Your task to perform on an android device: Toggle the flashlight Image 0: 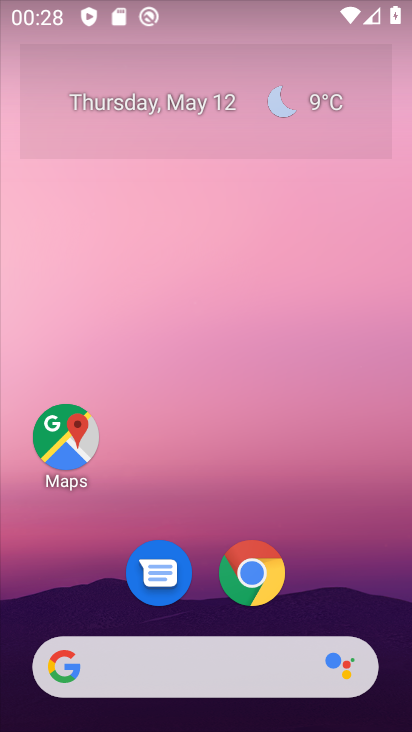
Step 0: drag from (224, 559) to (256, 6)
Your task to perform on an android device: Toggle the flashlight Image 1: 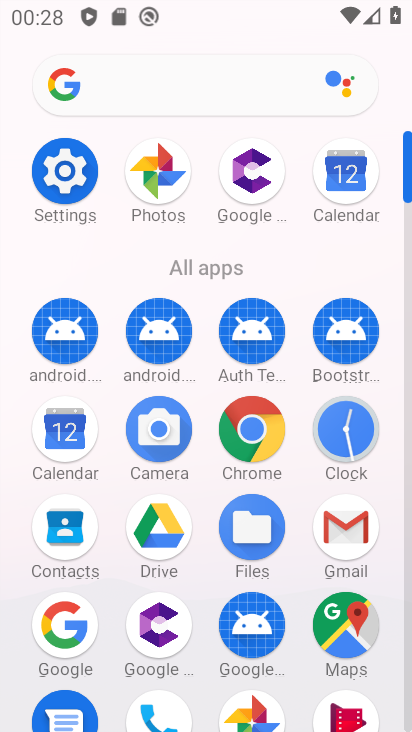
Step 1: click (70, 178)
Your task to perform on an android device: Toggle the flashlight Image 2: 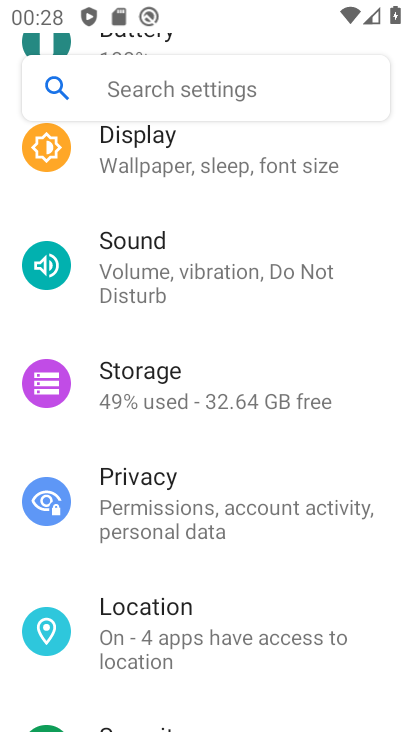
Step 2: click (217, 100)
Your task to perform on an android device: Toggle the flashlight Image 3: 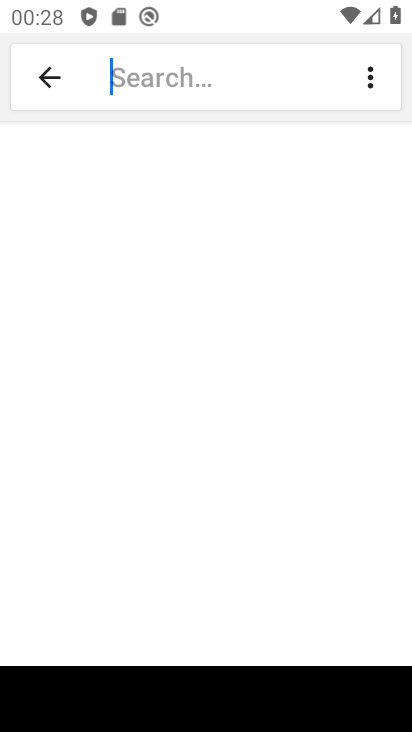
Step 3: type "flashlight"
Your task to perform on an android device: Toggle the flashlight Image 4: 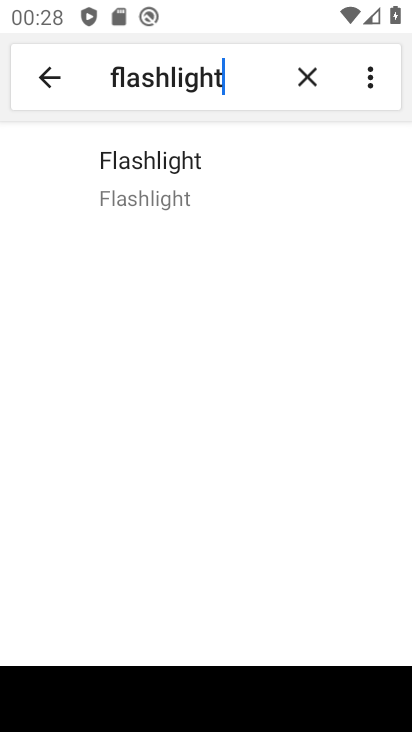
Step 4: click (233, 207)
Your task to perform on an android device: Toggle the flashlight Image 5: 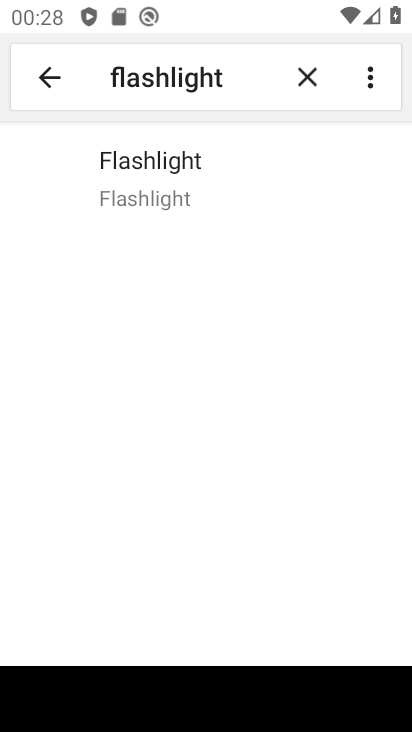
Step 5: click (218, 188)
Your task to perform on an android device: Toggle the flashlight Image 6: 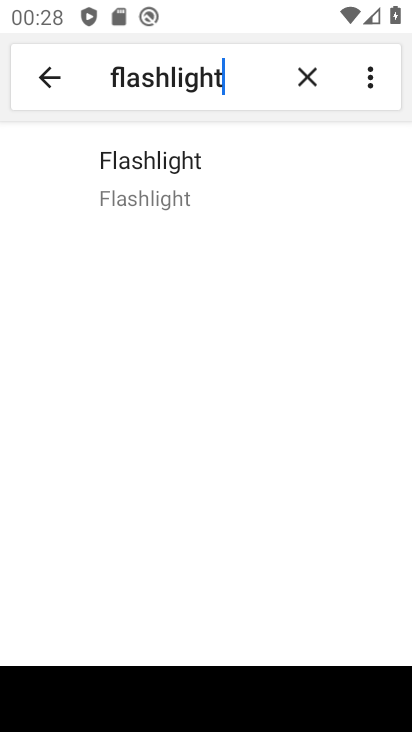
Step 6: task complete